Your task to perform on an android device: visit the assistant section in the google photos Image 0: 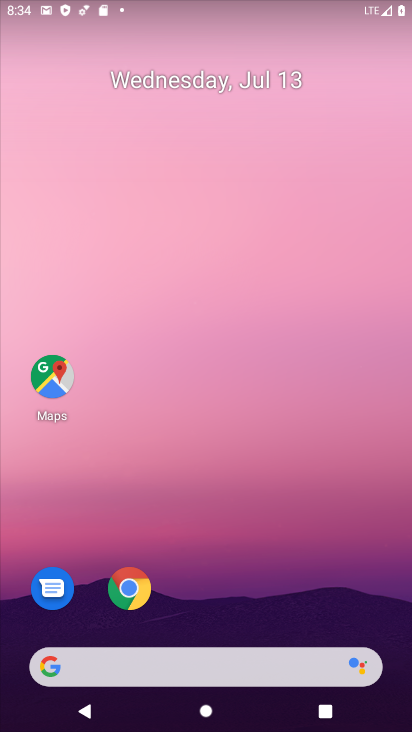
Step 0: drag from (225, 645) to (225, 112)
Your task to perform on an android device: visit the assistant section in the google photos Image 1: 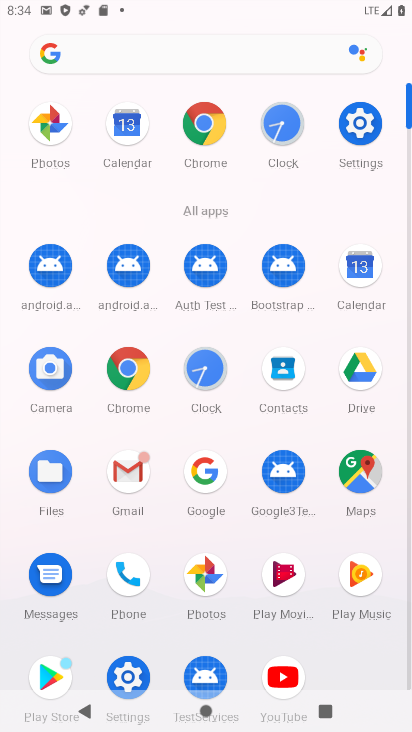
Step 1: click (213, 560)
Your task to perform on an android device: visit the assistant section in the google photos Image 2: 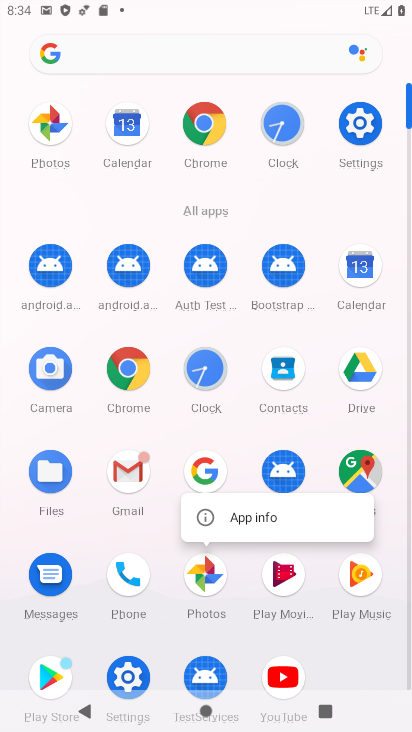
Step 2: click (207, 578)
Your task to perform on an android device: visit the assistant section in the google photos Image 3: 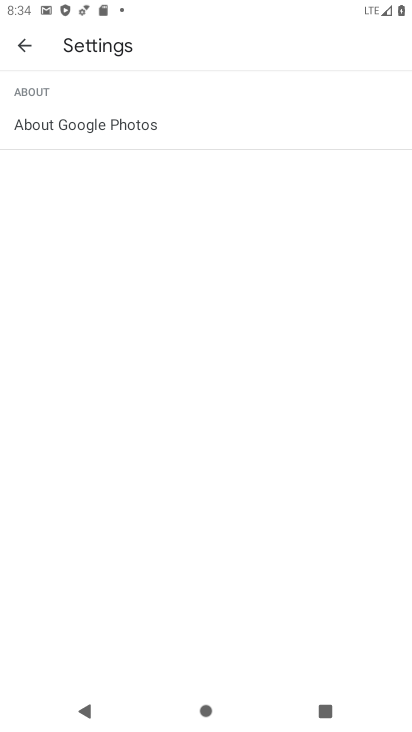
Step 3: click (33, 42)
Your task to perform on an android device: visit the assistant section in the google photos Image 4: 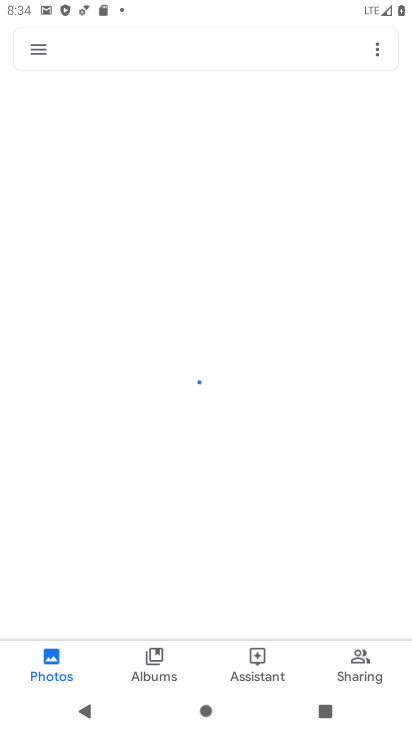
Step 4: click (258, 653)
Your task to perform on an android device: visit the assistant section in the google photos Image 5: 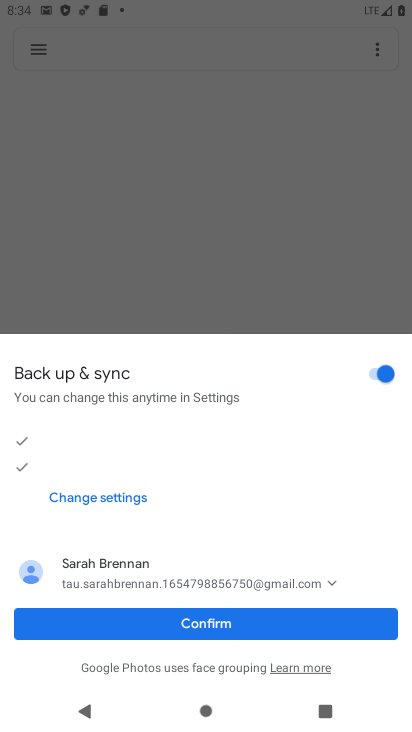
Step 5: click (259, 625)
Your task to perform on an android device: visit the assistant section in the google photos Image 6: 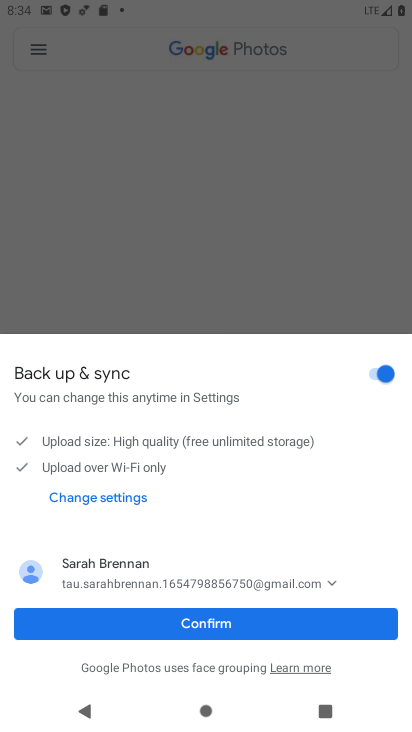
Step 6: click (259, 625)
Your task to perform on an android device: visit the assistant section in the google photos Image 7: 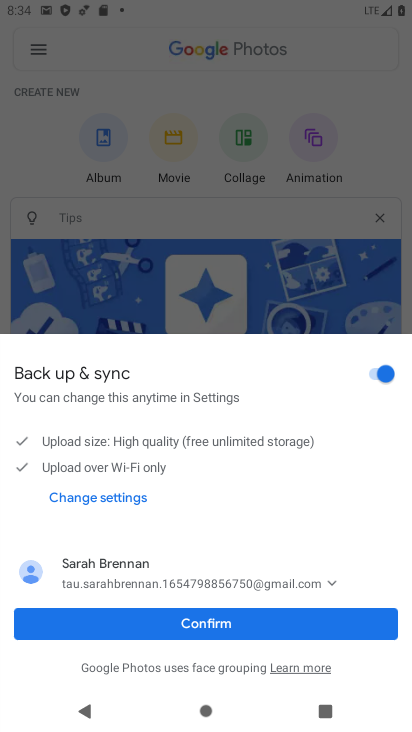
Step 7: click (246, 619)
Your task to perform on an android device: visit the assistant section in the google photos Image 8: 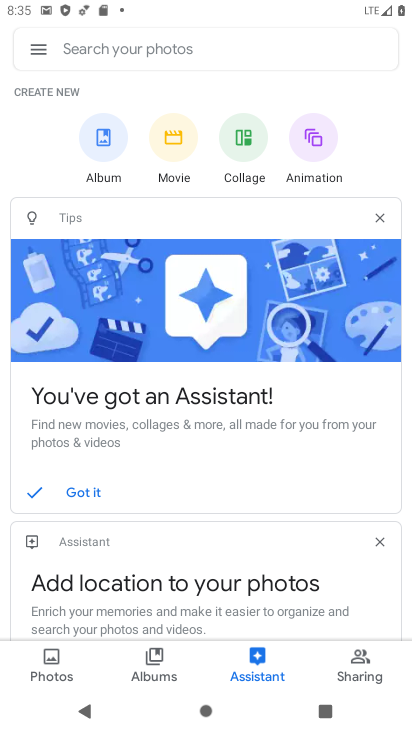
Step 8: task complete